Your task to perform on an android device: Open the calendar app, open the side menu, and click the "Day" option Image 0: 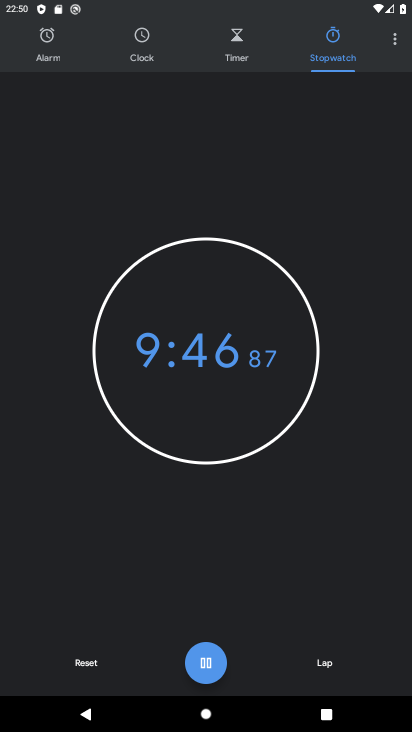
Step 0: press home button
Your task to perform on an android device: Open the calendar app, open the side menu, and click the "Day" option Image 1: 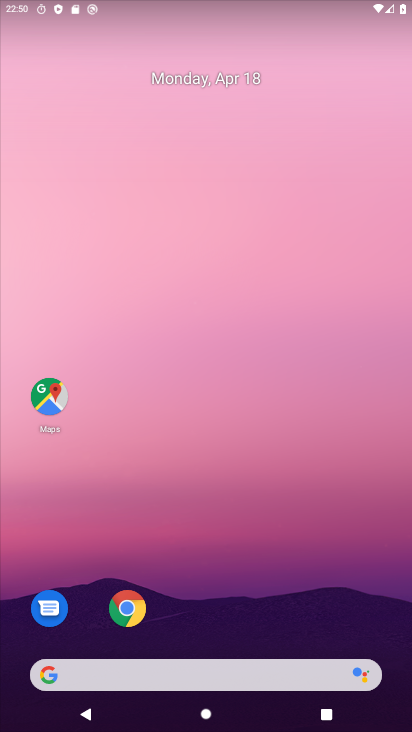
Step 1: drag from (205, 606) to (238, 99)
Your task to perform on an android device: Open the calendar app, open the side menu, and click the "Day" option Image 2: 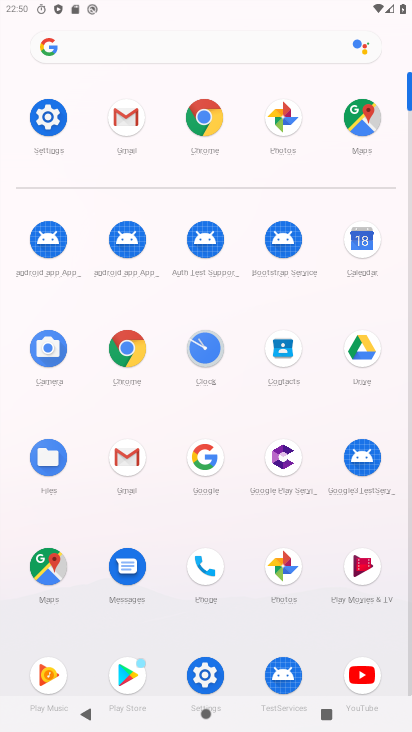
Step 2: click (365, 238)
Your task to perform on an android device: Open the calendar app, open the side menu, and click the "Day" option Image 3: 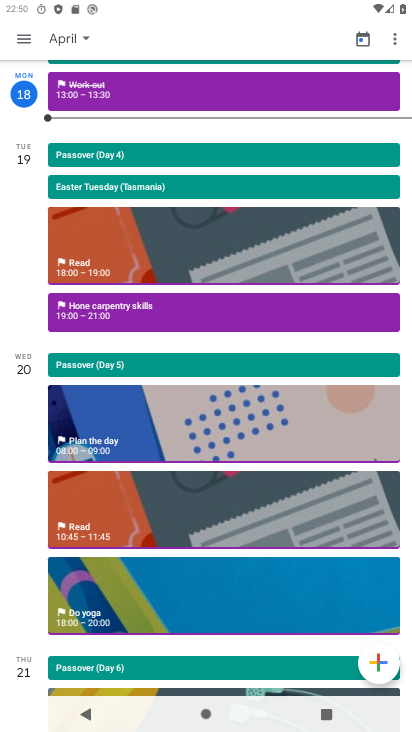
Step 3: click (20, 34)
Your task to perform on an android device: Open the calendar app, open the side menu, and click the "Day" option Image 4: 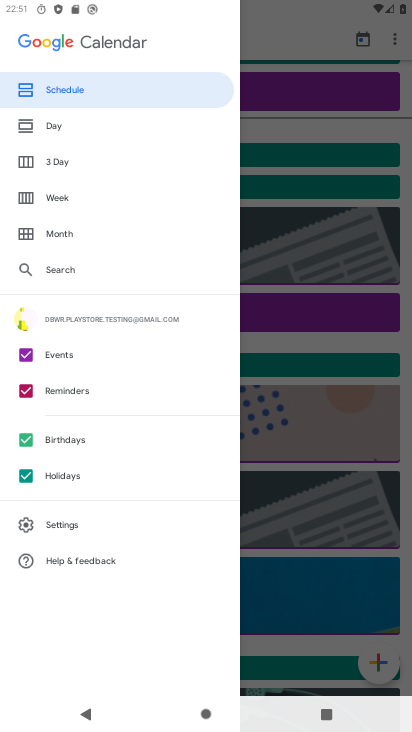
Step 4: click (61, 127)
Your task to perform on an android device: Open the calendar app, open the side menu, and click the "Day" option Image 5: 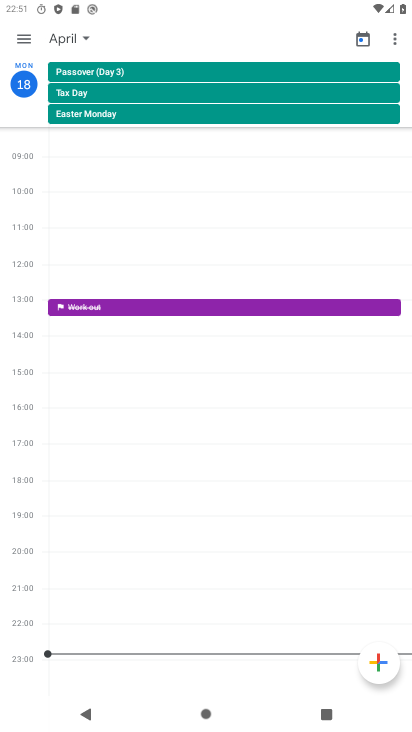
Step 5: task complete